Your task to perform on an android device: What is the recent news? Image 0: 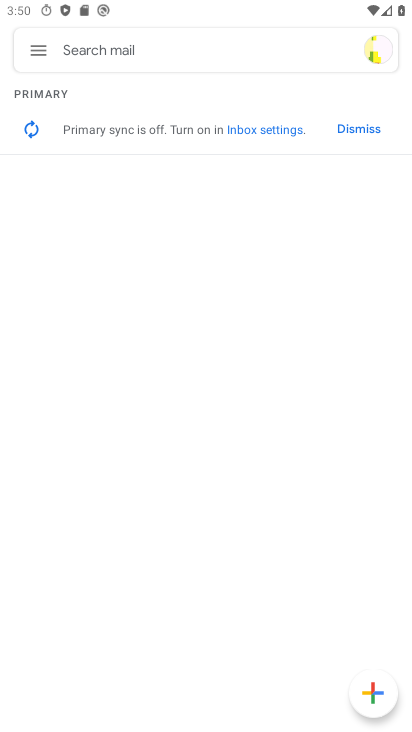
Step 0: press home button
Your task to perform on an android device: What is the recent news? Image 1: 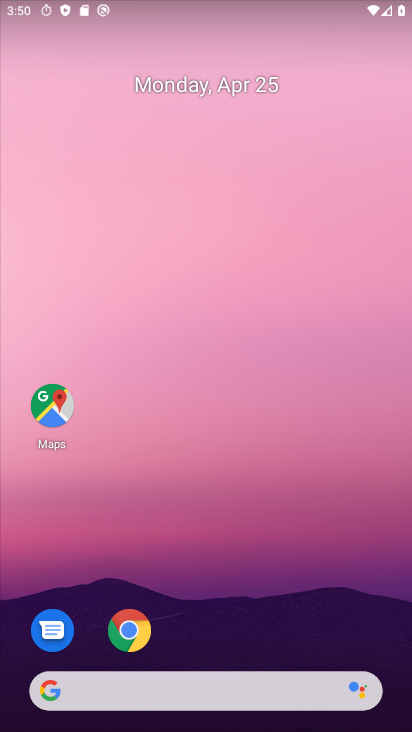
Step 1: drag from (276, 557) to (298, 0)
Your task to perform on an android device: What is the recent news? Image 2: 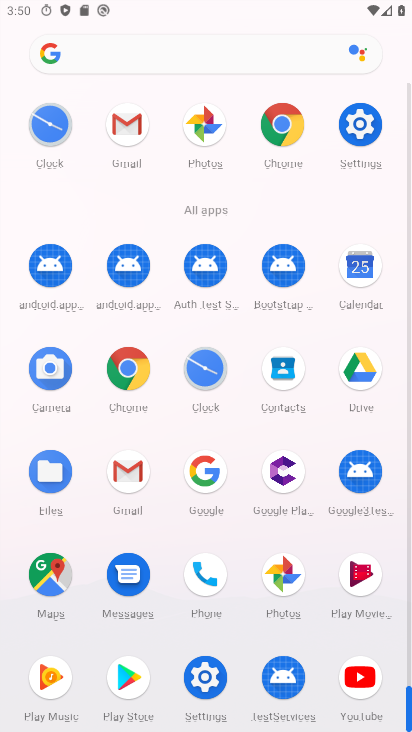
Step 2: click (282, 127)
Your task to perform on an android device: What is the recent news? Image 3: 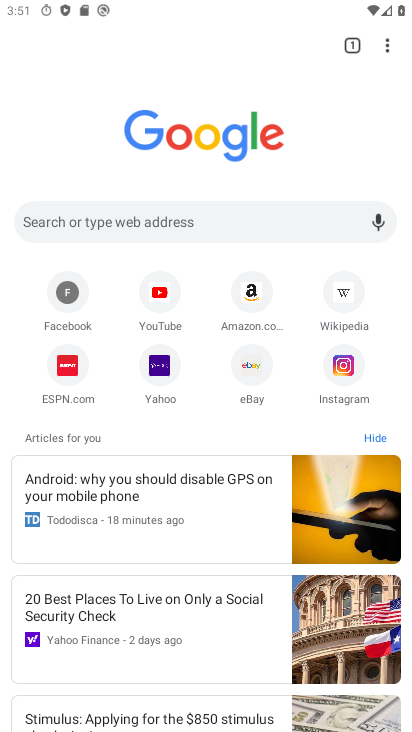
Step 3: task complete